Your task to perform on an android device: Search for a small bookcase on Ikea.com Image 0: 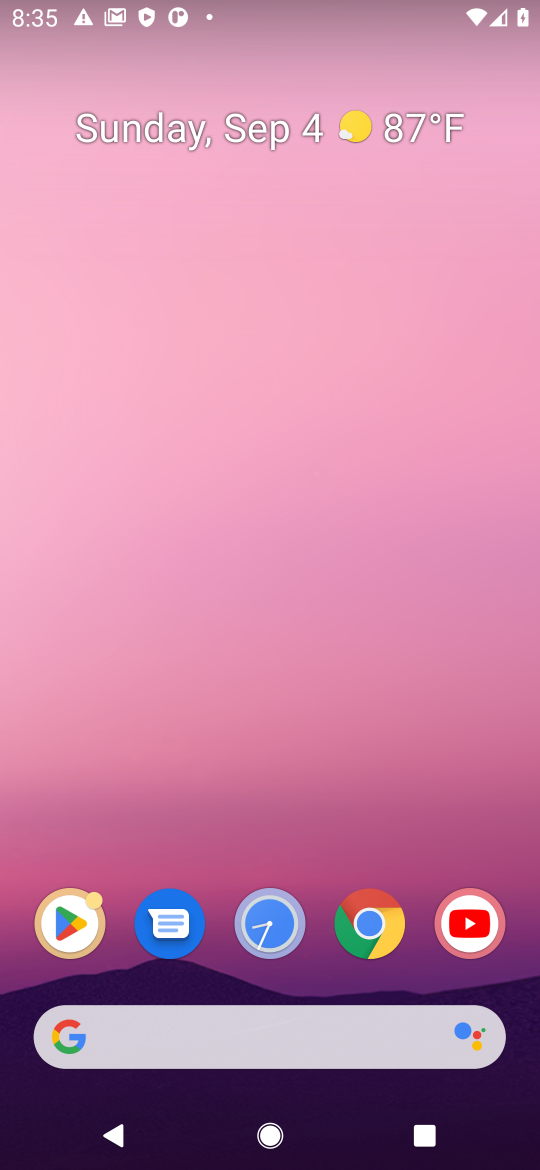
Step 0: click (328, 1055)
Your task to perform on an android device: Search for a small bookcase on Ikea.com Image 1: 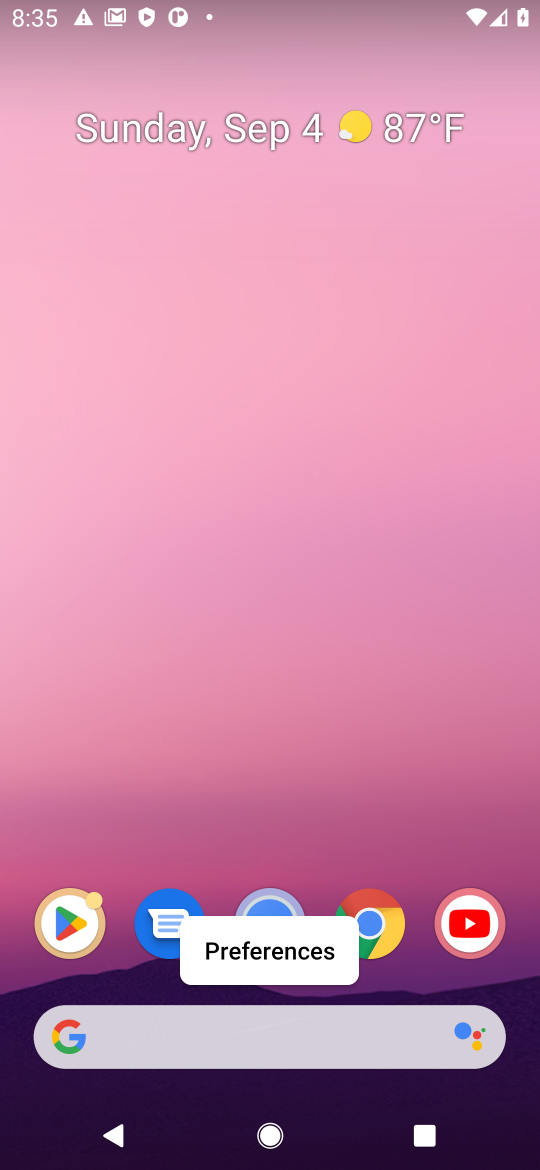
Step 1: click (328, 1055)
Your task to perform on an android device: Search for a small bookcase on Ikea.com Image 2: 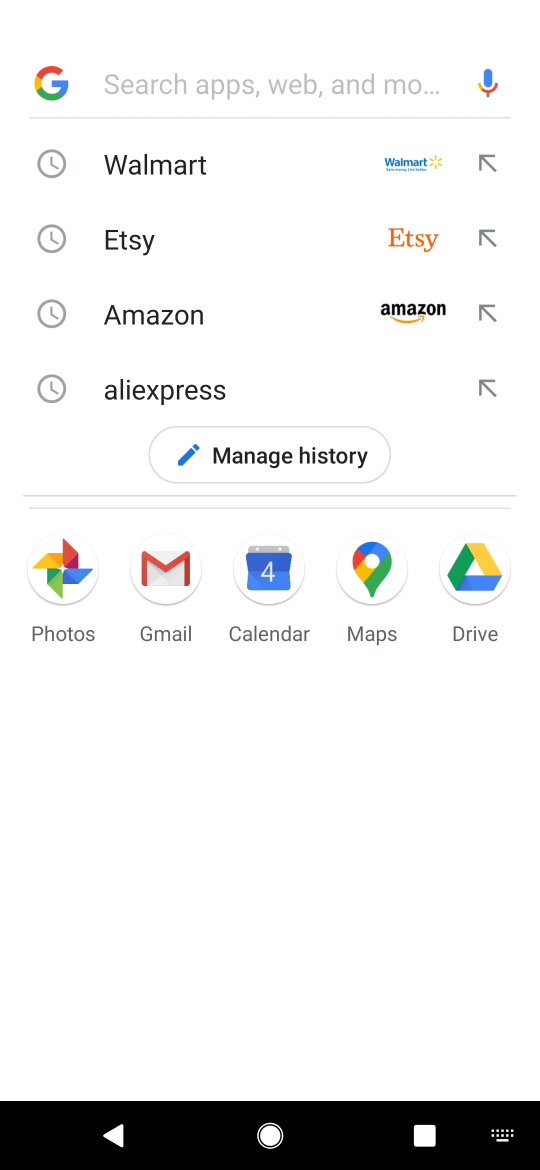
Step 2: press enter
Your task to perform on an android device: Search for a small bookcase on Ikea.com Image 3: 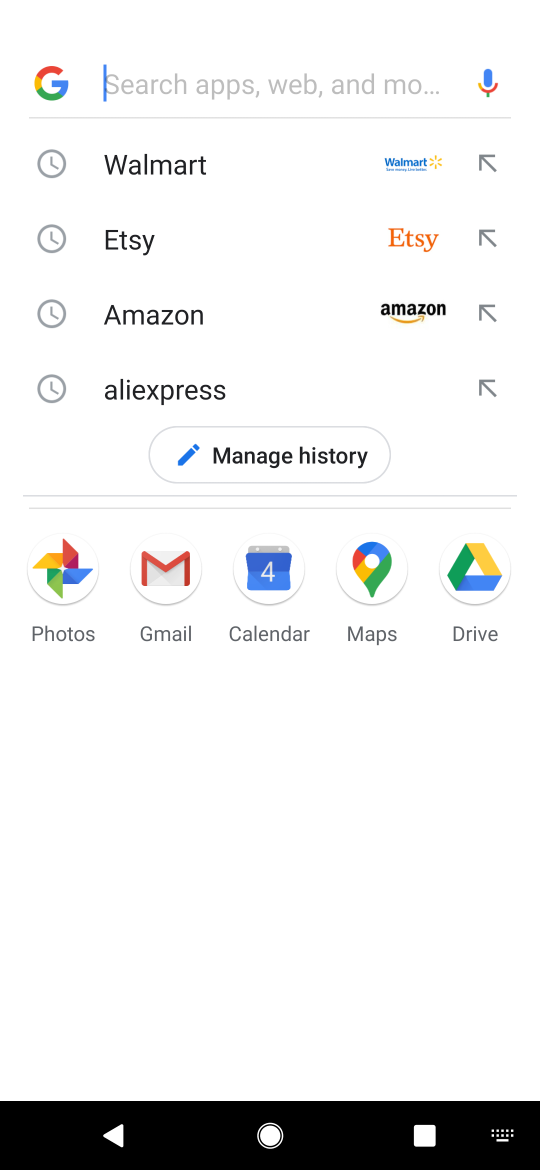
Step 3: type "ikea.com"
Your task to perform on an android device: Search for a small bookcase on Ikea.com Image 4: 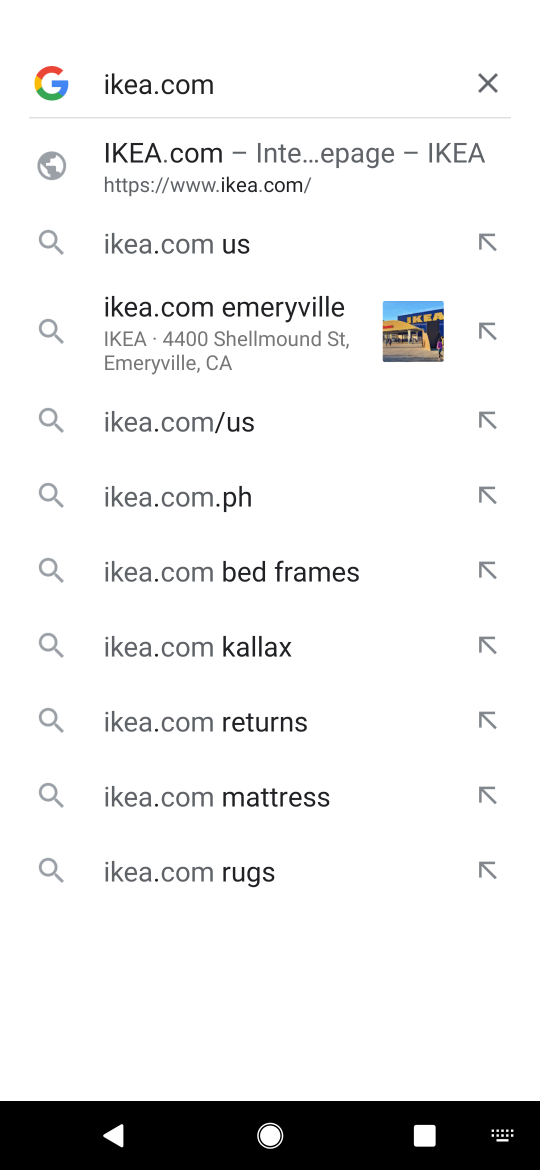
Step 4: click (264, 170)
Your task to perform on an android device: Search for a small bookcase on Ikea.com Image 5: 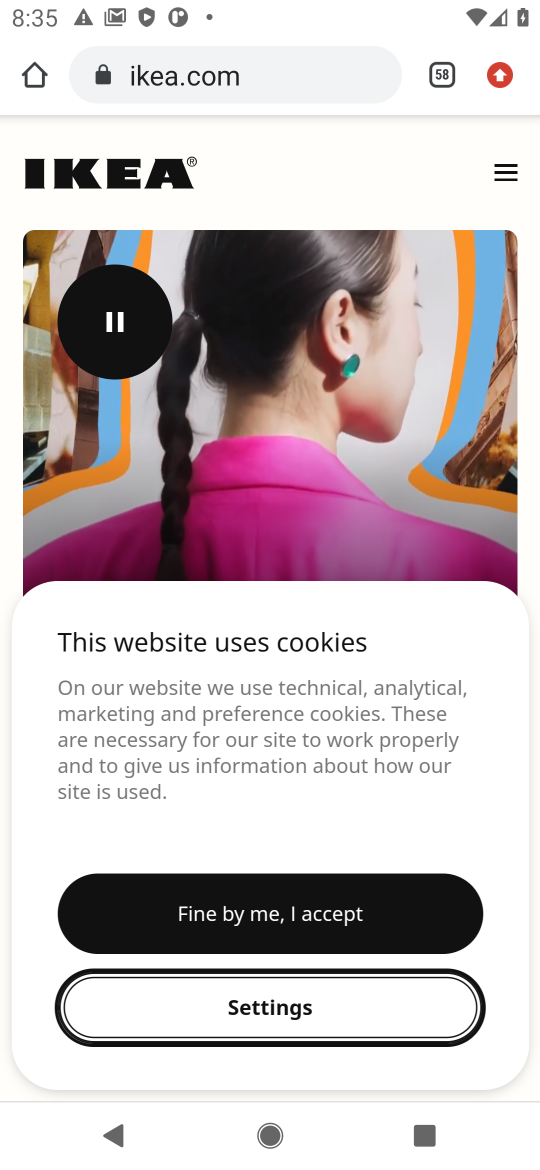
Step 5: click (295, 907)
Your task to perform on an android device: Search for a small bookcase on Ikea.com Image 6: 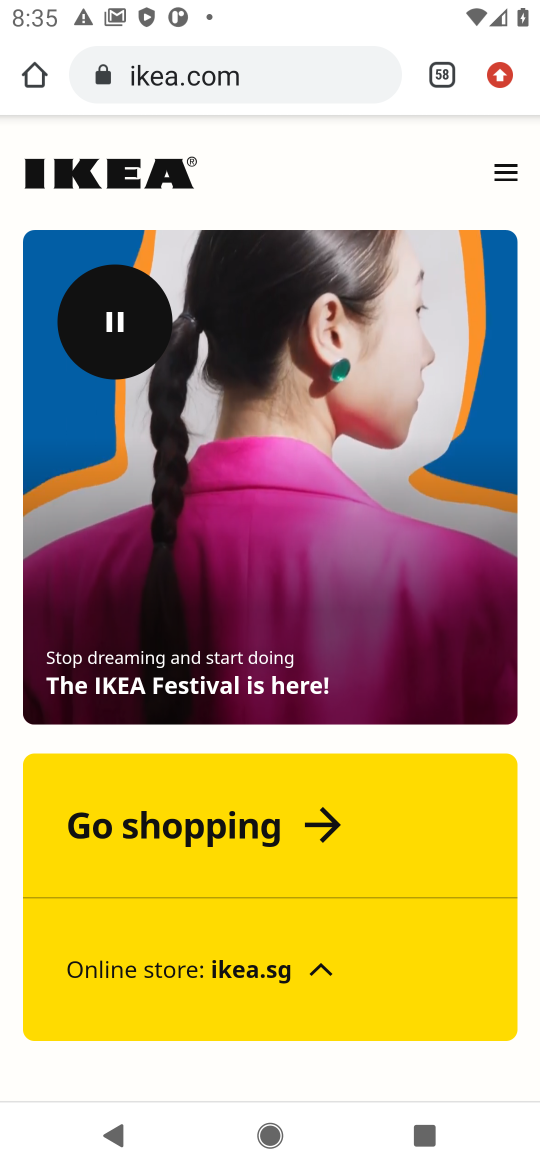
Step 6: click (317, 847)
Your task to perform on an android device: Search for a small bookcase on Ikea.com Image 7: 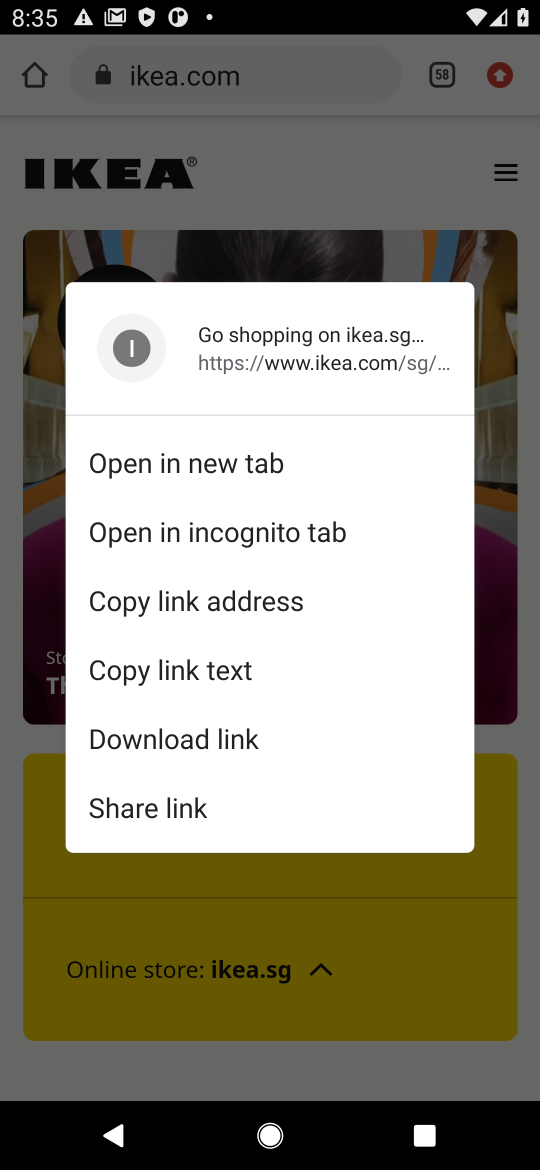
Step 7: click (268, 470)
Your task to perform on an android device: Search for a small bookcase on Ikea.com Image 8: 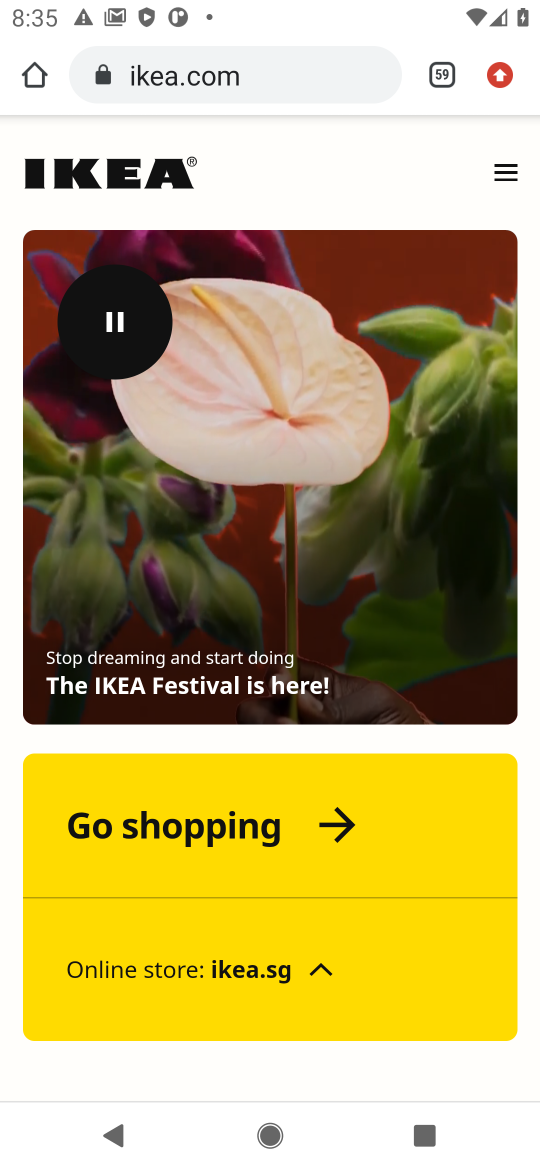
Step 8: click (251, 835)
Your task to perform on an android device: Search for a small bookcase on Ikea.com Image 9: 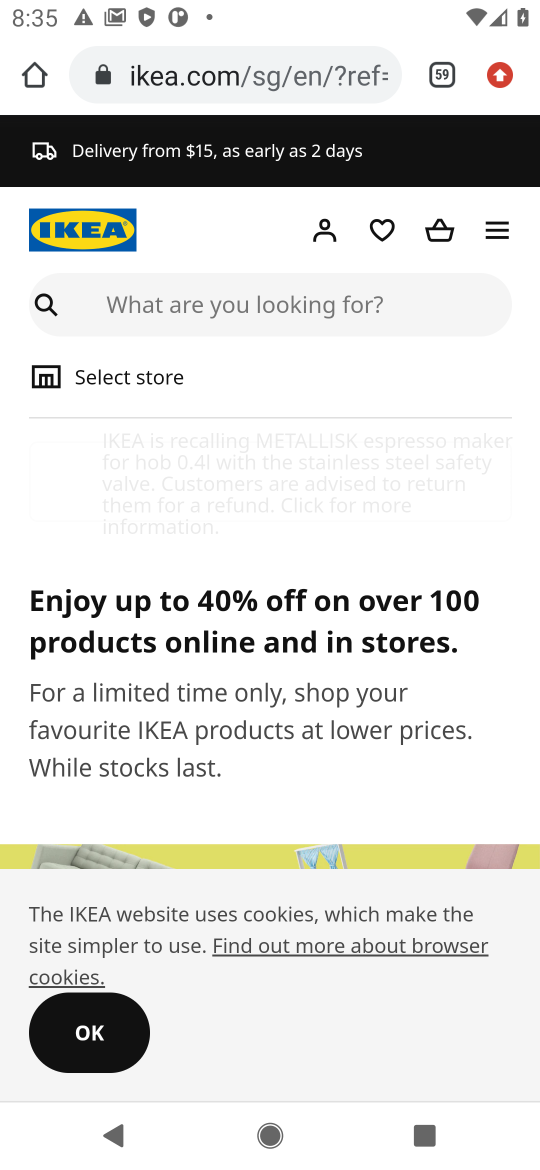
Step 9: click (285, 303)
Your task to perform on an android device: Search for a small bookcase on Ikea.com Image 10: 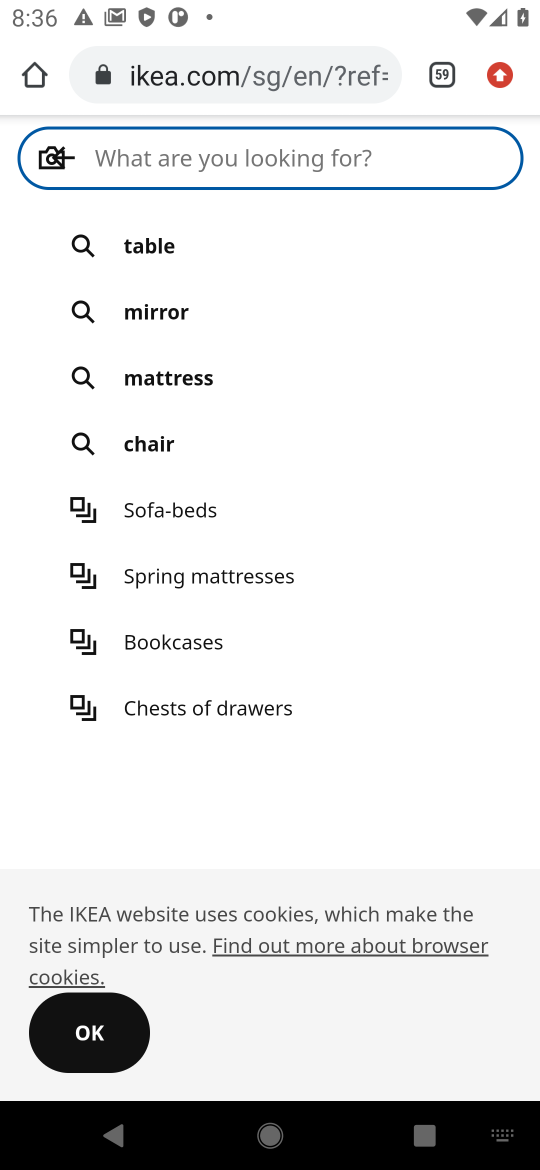
Step 10: type "small bookcase"
Your task to perform on an android device: Search for a small bookcase on Ikea.com Image 11: 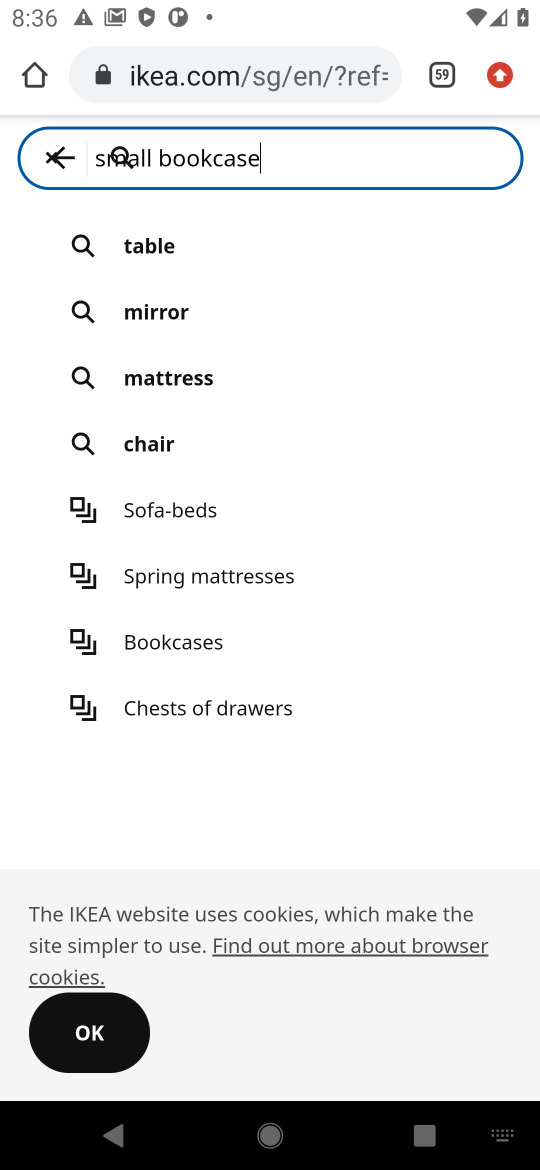
Step 11: press enter
Your task to perform on an android device: Search for a small bookcase on Ikea.com Image 12: 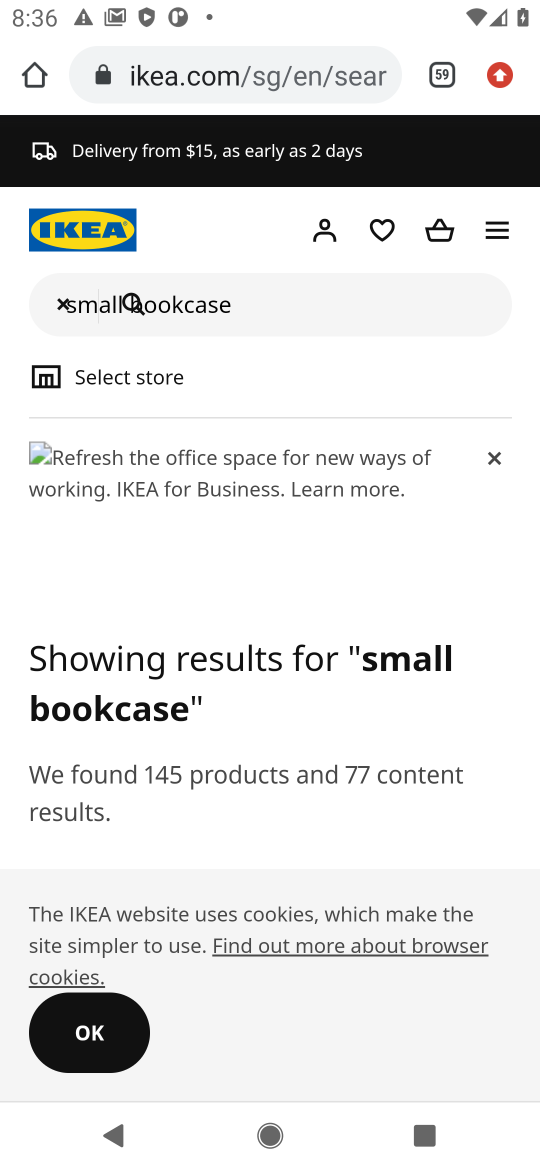
Step 12: click (92, 1034)
Your task to perform on an android device: Search for a small bookcase on Ikea.com Image 13: 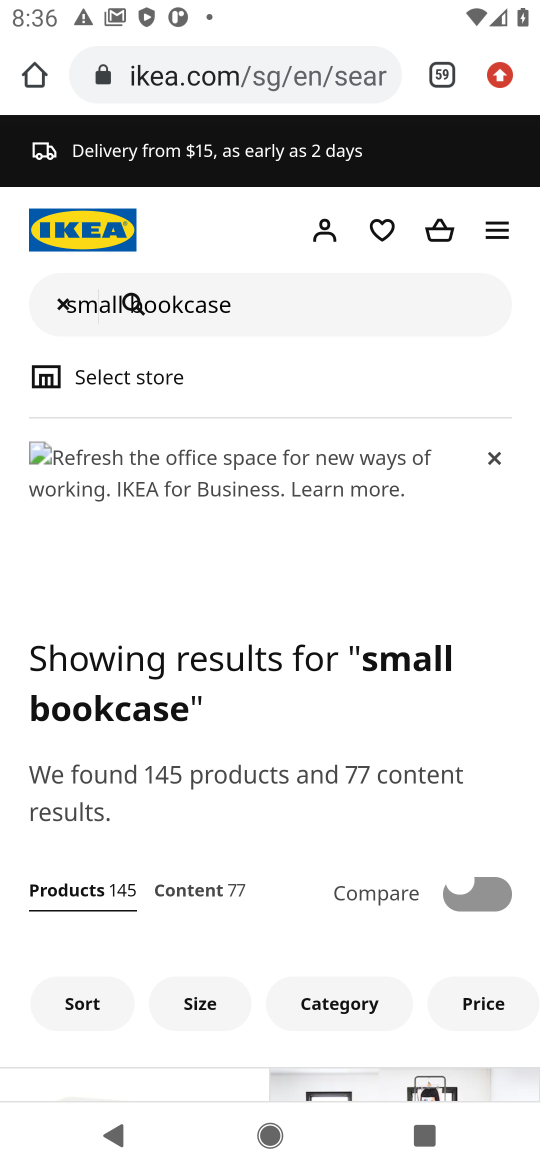
Step 13: task complete